Your task to perform on an android device: Add asus zenbook to the cart on target, then select checkout. Image 0: 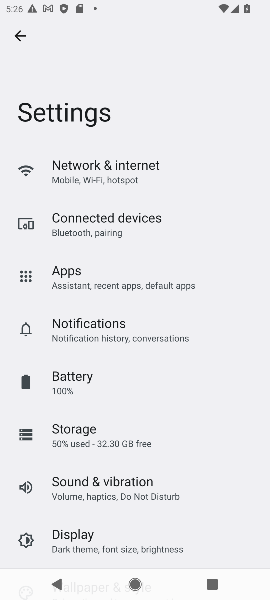
Step 0: press home button
Your task to perform on an android device: Add asus zenbook to the cart on target, then select checkout. Image 1: 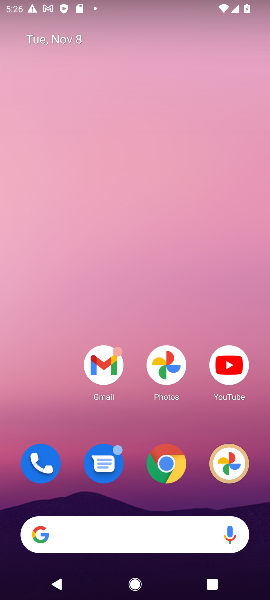
Step 1: click (162, 466)
Your task to perform on an android device: Add asus zenbook to the cart on target, then select checkout. Image 2: 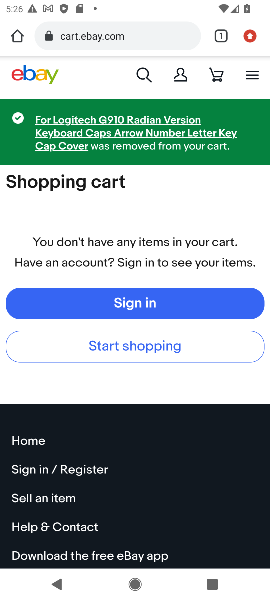
Step 2: click (96, 34)
Your task to perform on an android device: Add asus zenbook to the cart on target, then select checkout. Image 3: 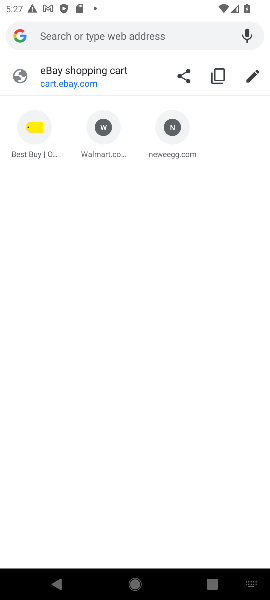
Step 3: type "target"
Your task to perform on an android device: Add asus zenbook to the cart on target, then select checkout. Image 4: 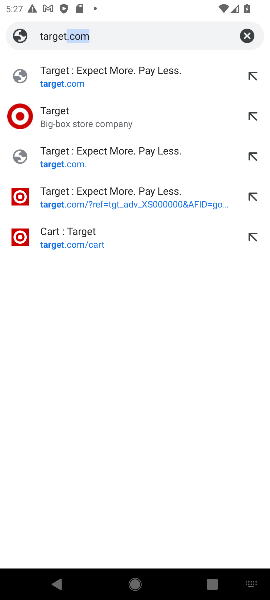
Step 4: click (82, 121)
Your task to perform on an android device: Add asus zenbook to the cart on target, then select checkout. Image 5: 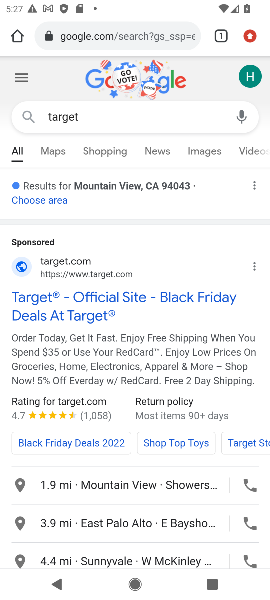
Step 5: click (95, 302)
Your task to perform on an android device: Add asus zenbook to the cart on target, then select checkout. Image 6: 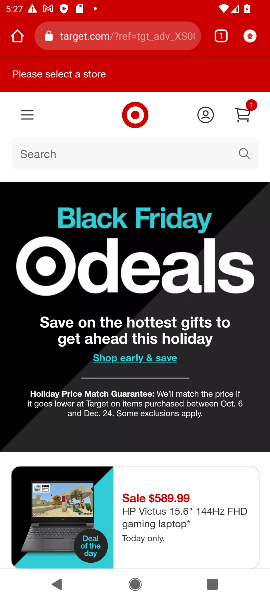
Step 6: click (136, 157)
Your task to perform on an android device: Add asus zenbook to the cart on target, then select checkout. Image 7: 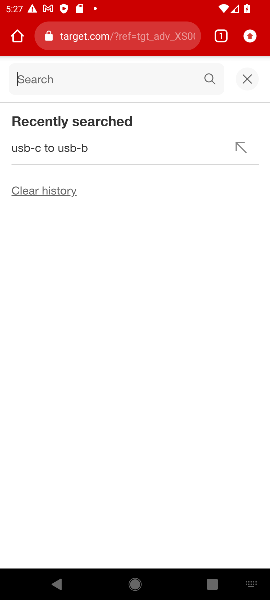
Step 7: type "asus zenbook"
Your task to perform on an android device: Add asus zenbook to the cart on target, then select checkout. Image 8: 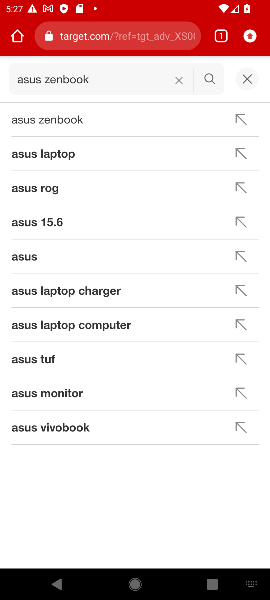
Step 8: click (214, 85)
Your task to perform on an android device: Add asus zenbook to the cart on target, then select checkout. Image 9: 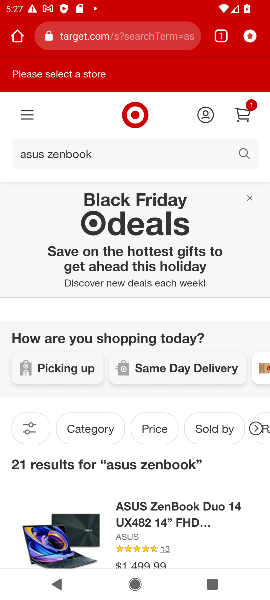
Step 9: drag from (110, 482) to (137, 119)
Your task to perform on an android device: Add asus zenbook to the cart on target, then select checkout. Image 10: 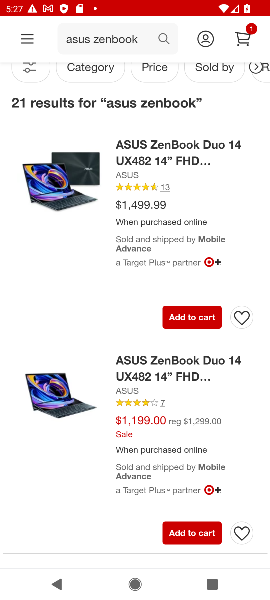
Step 10: click (206, 313)
Your task to perform on an android device: Add asus zenbook to the cart on target, then select checkout. Image 11: 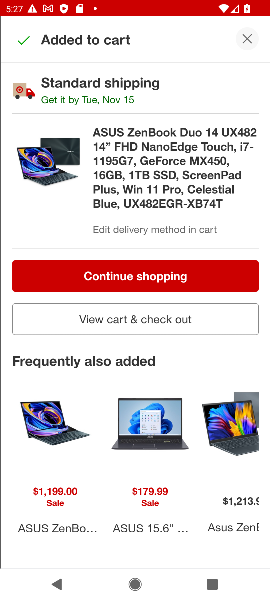
Step 11: click (161, 315)
Your task to perform on an android device: Add asus zenbook to the cart on target, then select checkout. Image 12: 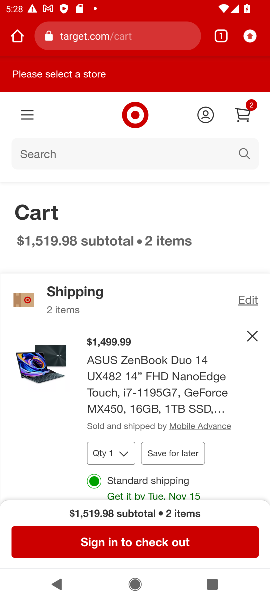
Step 12: click (136, 529)
Your task to perform on an android device: Add asus zenbook to the cart on target, then select checkout. Image 13: 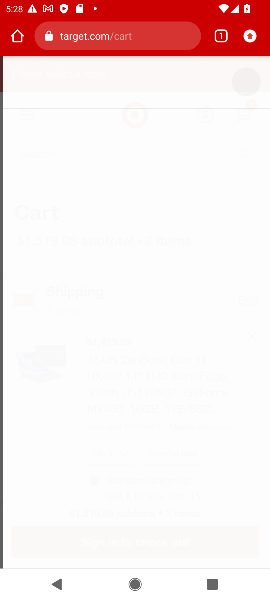
Step 13: click (157, 542)
Your task to perform on an android device: Add asus zenbook to the cart on target, then select checkout. Image 14: 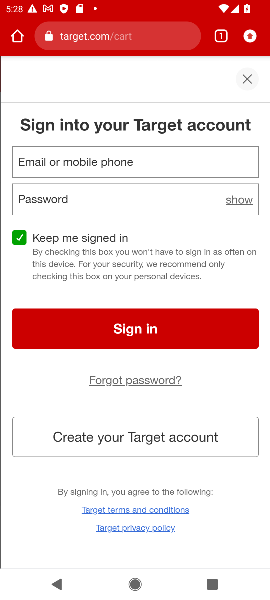
Step 14: task complete